Your task to perform on an android device: snooze an email in the gmail app Image 0: 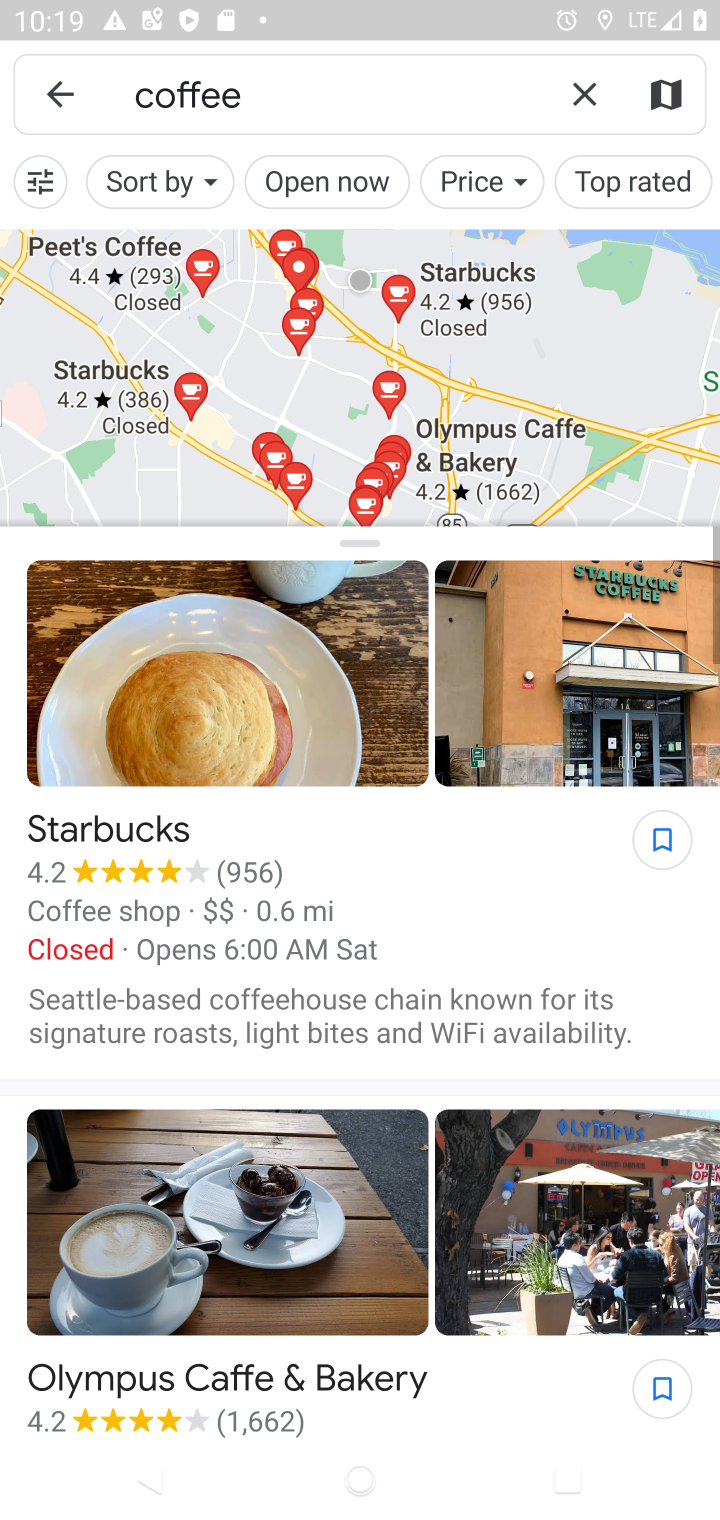
Step 0: press home button
Your task to perform on an android device: snooze an email in the gmail app Image 1: 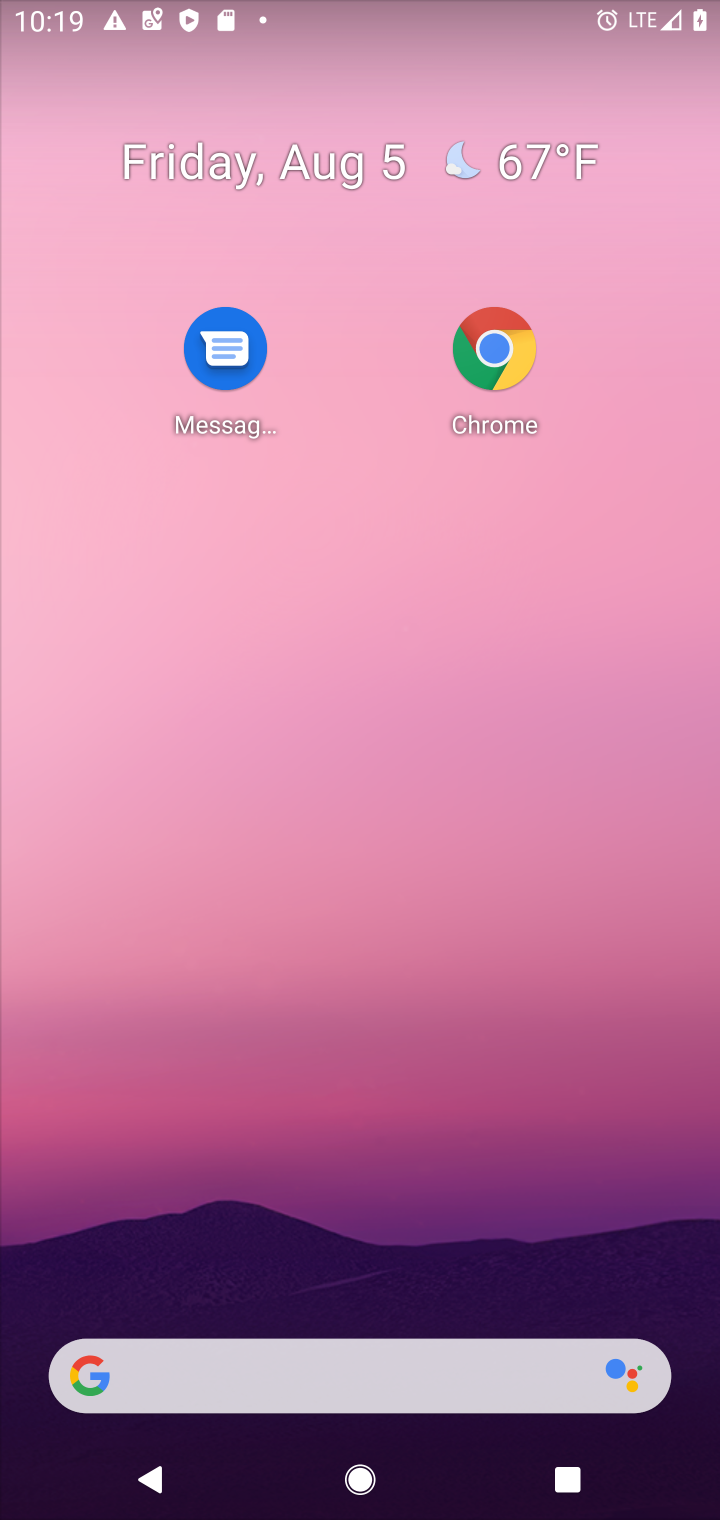
Step 1: drag from (419, 1050) to (444, 297)
Your task to perform on an android device: snooze an email in the gmail app Image 2: 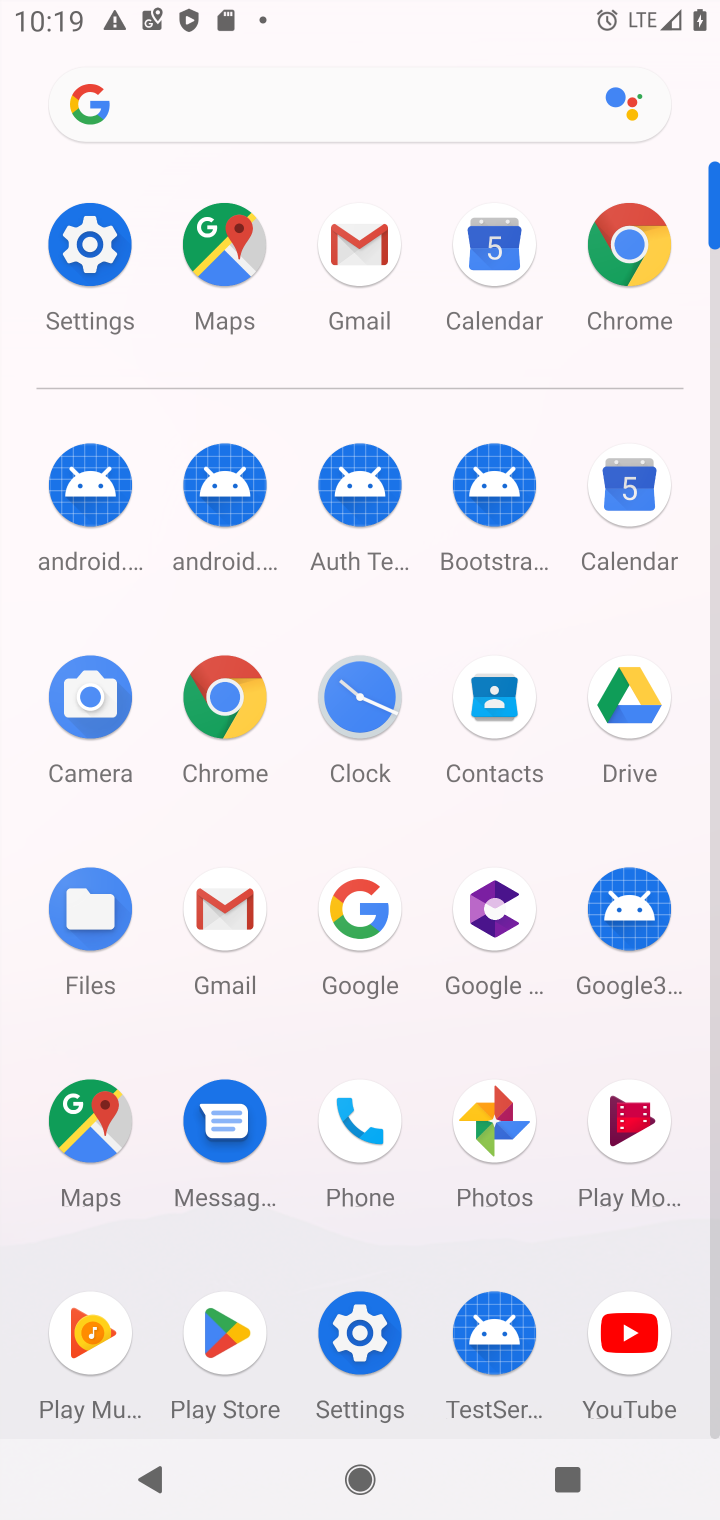
Step 2: click (366, 268)
Your task to perform on an android device: snooze an email in the gmail app Image 3: 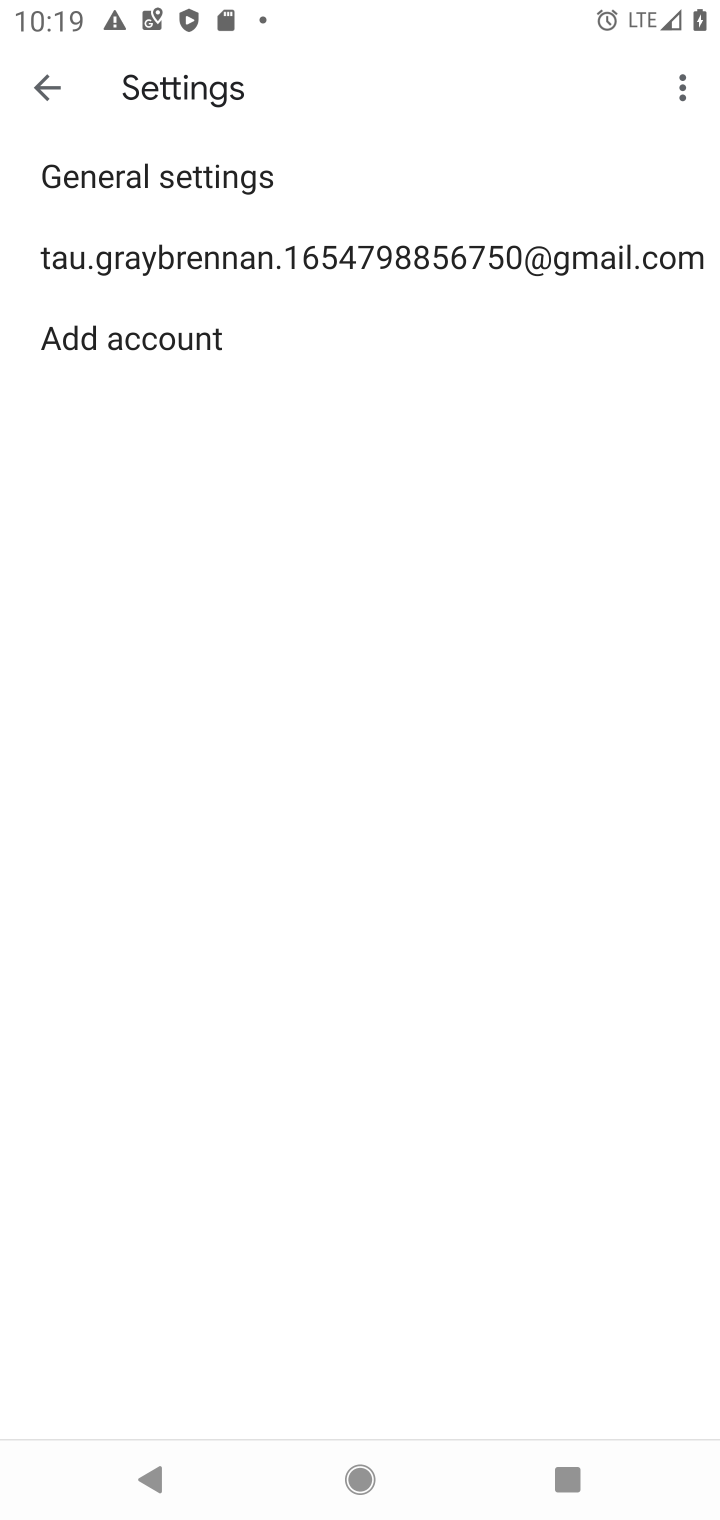
Step 3: click (34, 74)
Your task to perform on an android device: snooze an email in the gmail app Image 4: 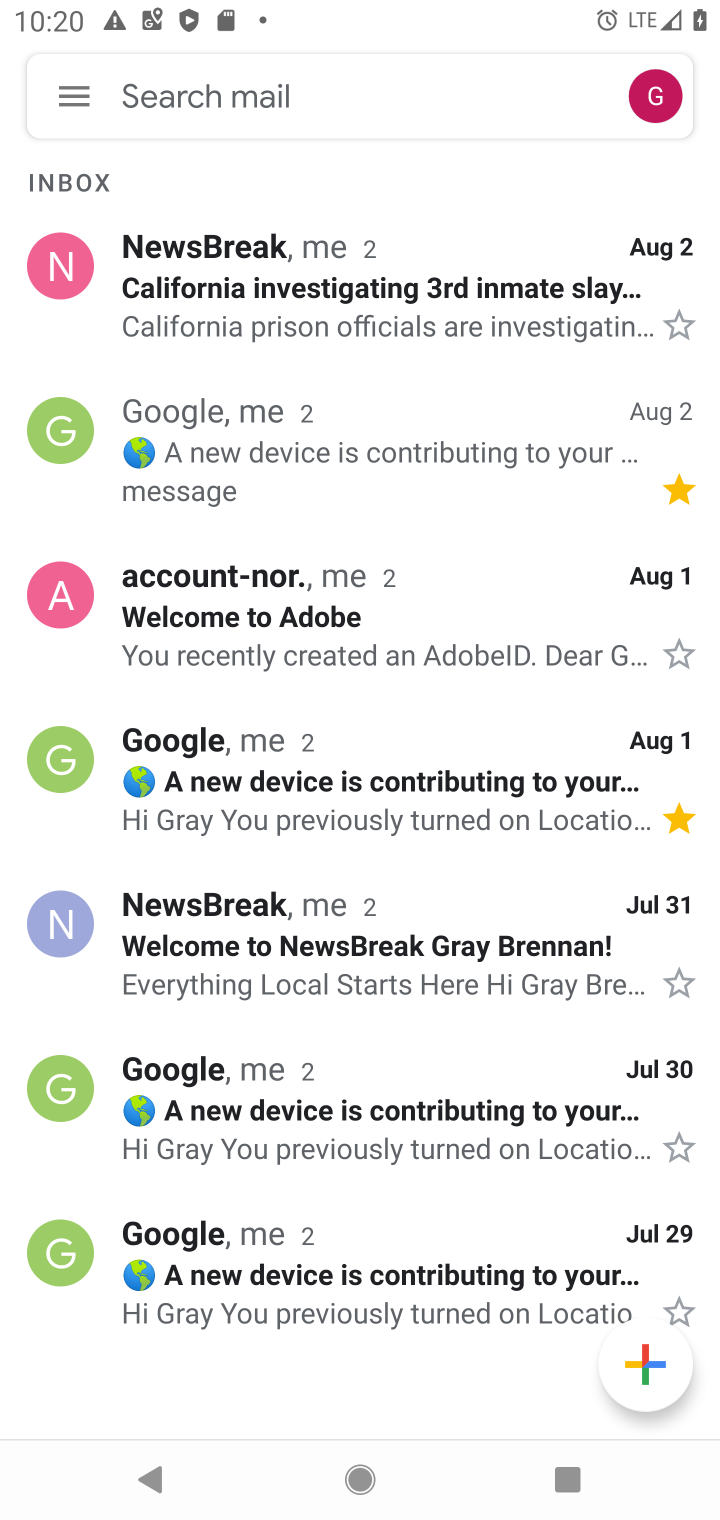
Step 4: click (275, 476)
Your task to perform on an android device: snooze an email in the gmail app Image 5: 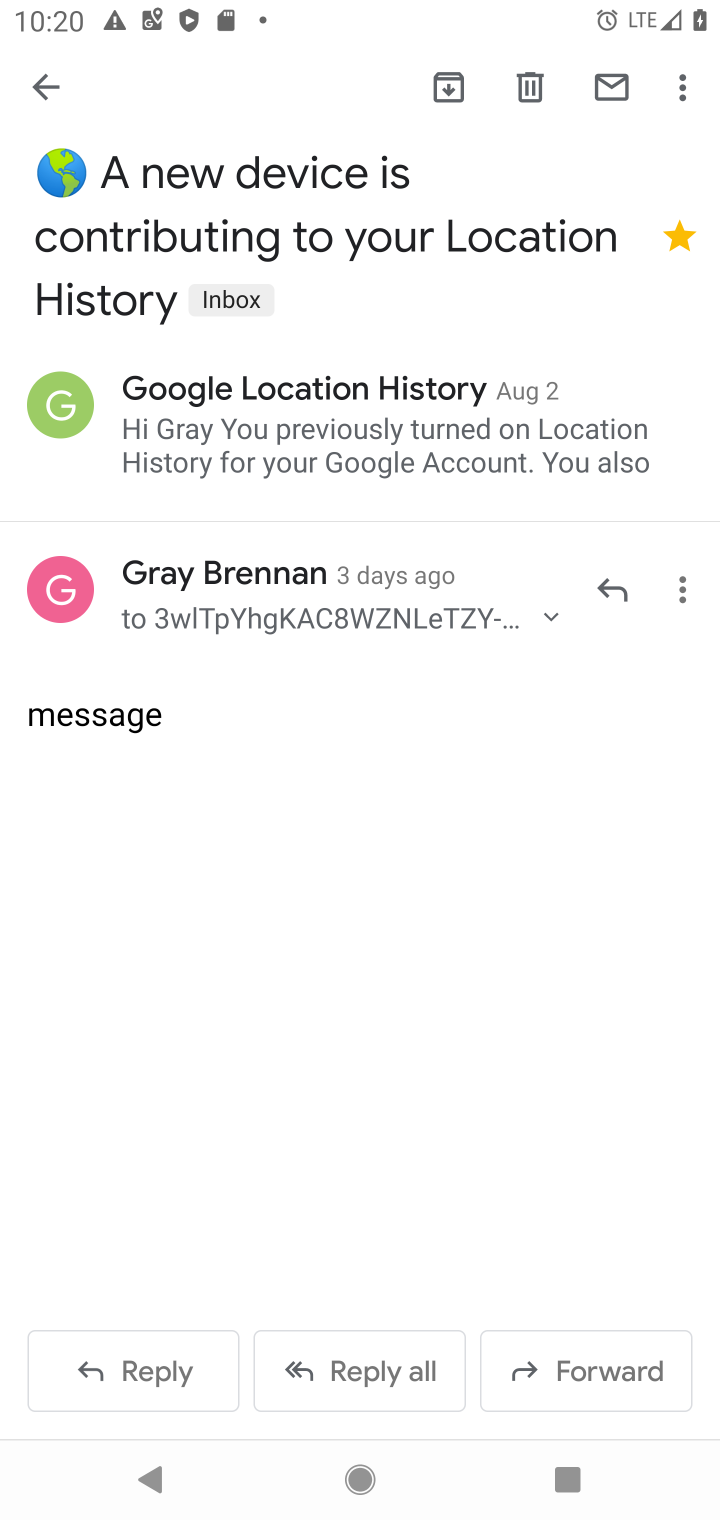
Step 5: click (680, 106)
Your task to perform on an android device: snooze an email in the gmail app Image 6: 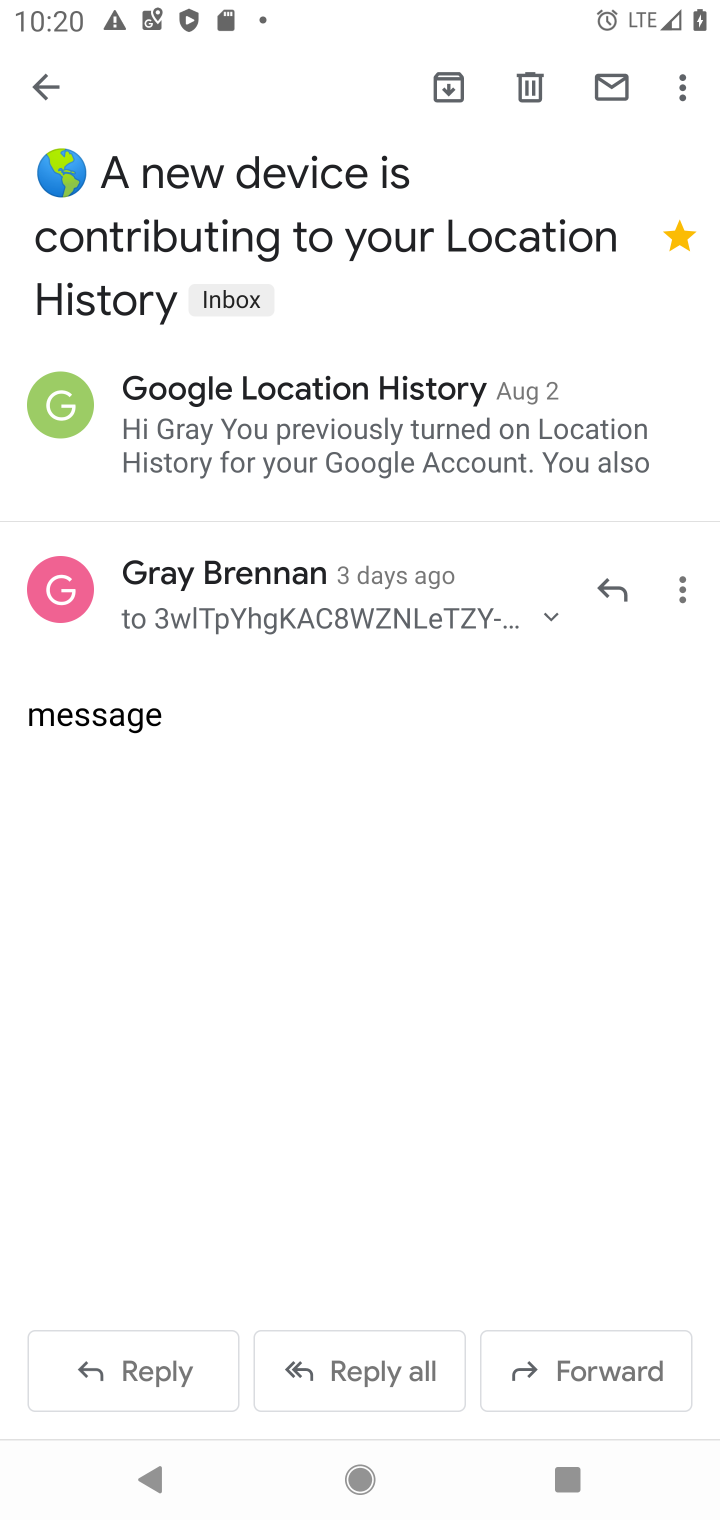
Step 6: click (669, 99)
Your task to perform on an android device: snooze an email in the gmail app Image 7: 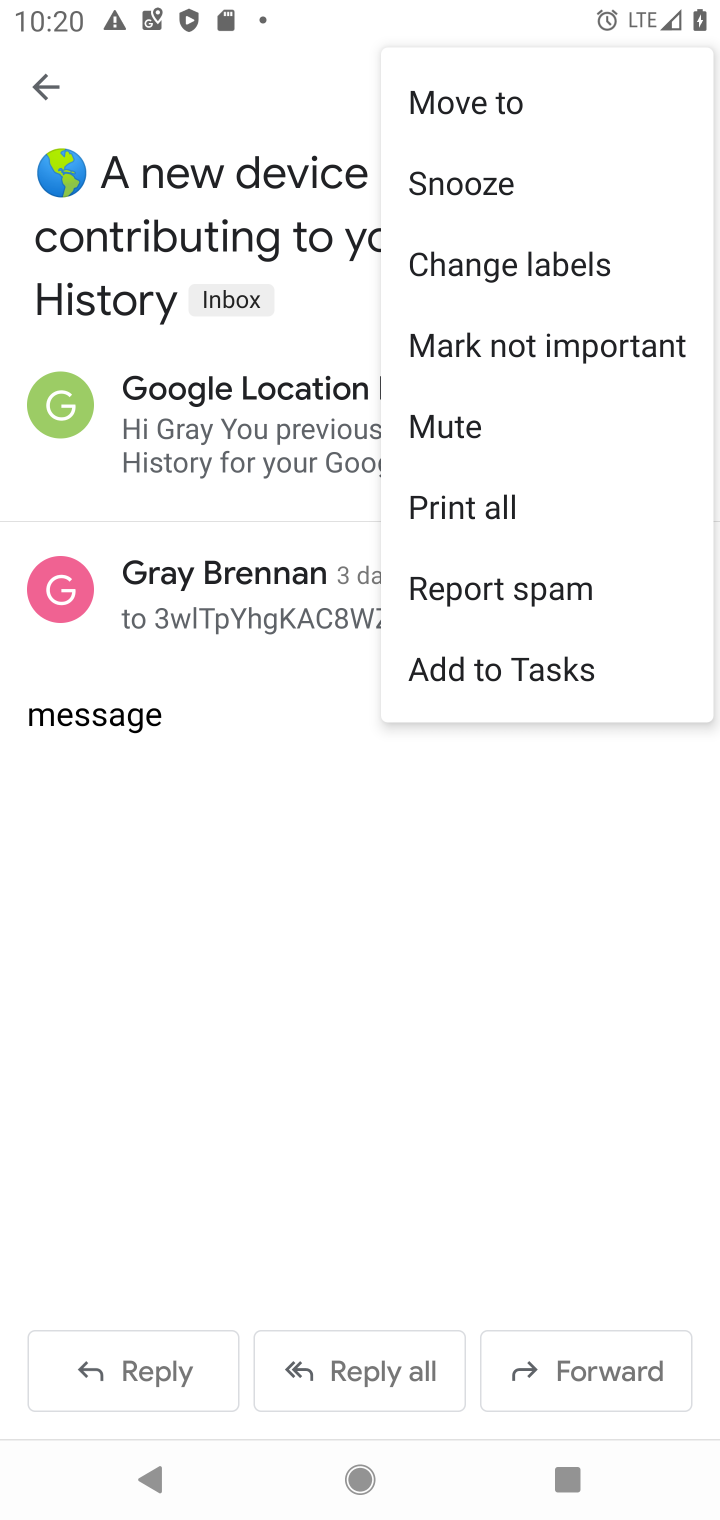
Step 7: click (500, 214)
Your task to perform on an android device: snooze an email in the gmail app Image 8: 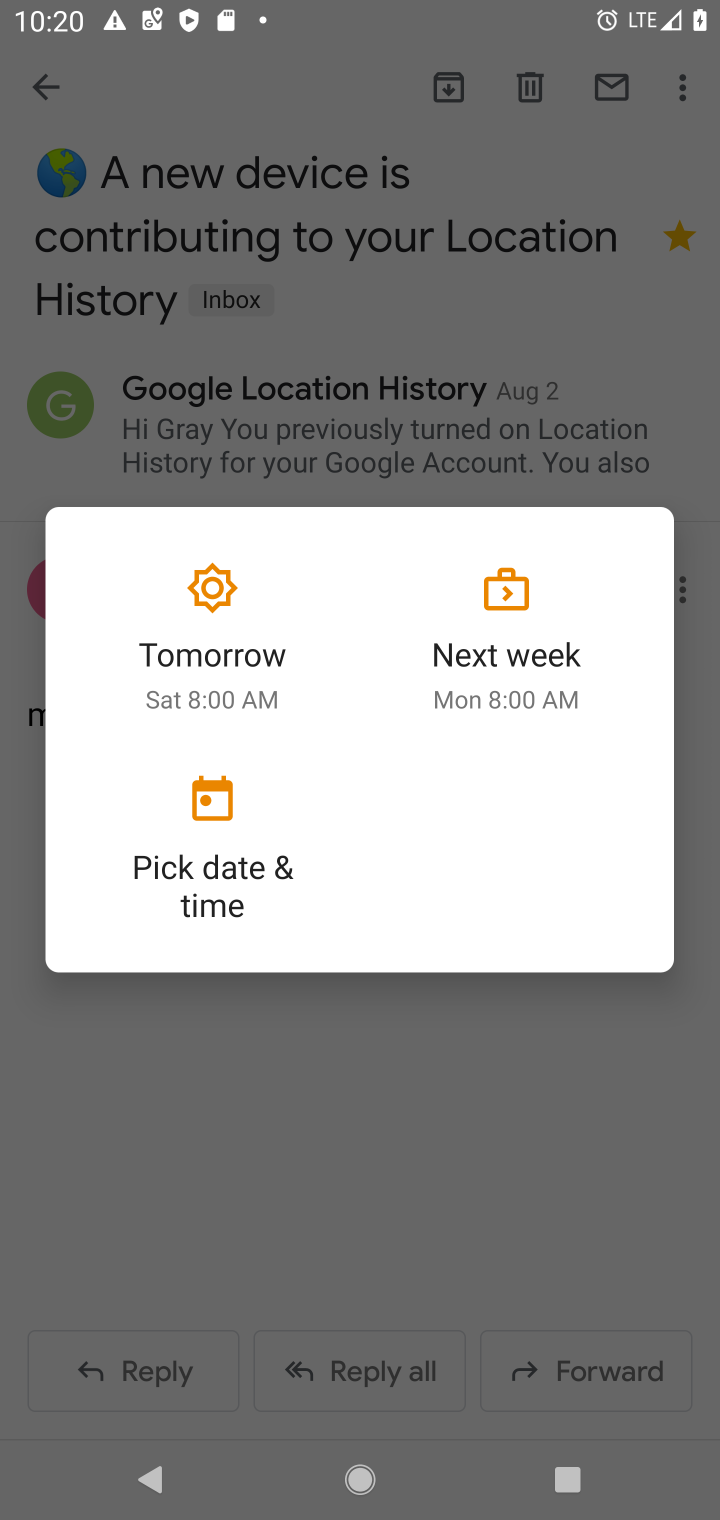
Step 8: click (263, 682)
Your task to perform on an android device: snooze an email in the gmail app Image 9: 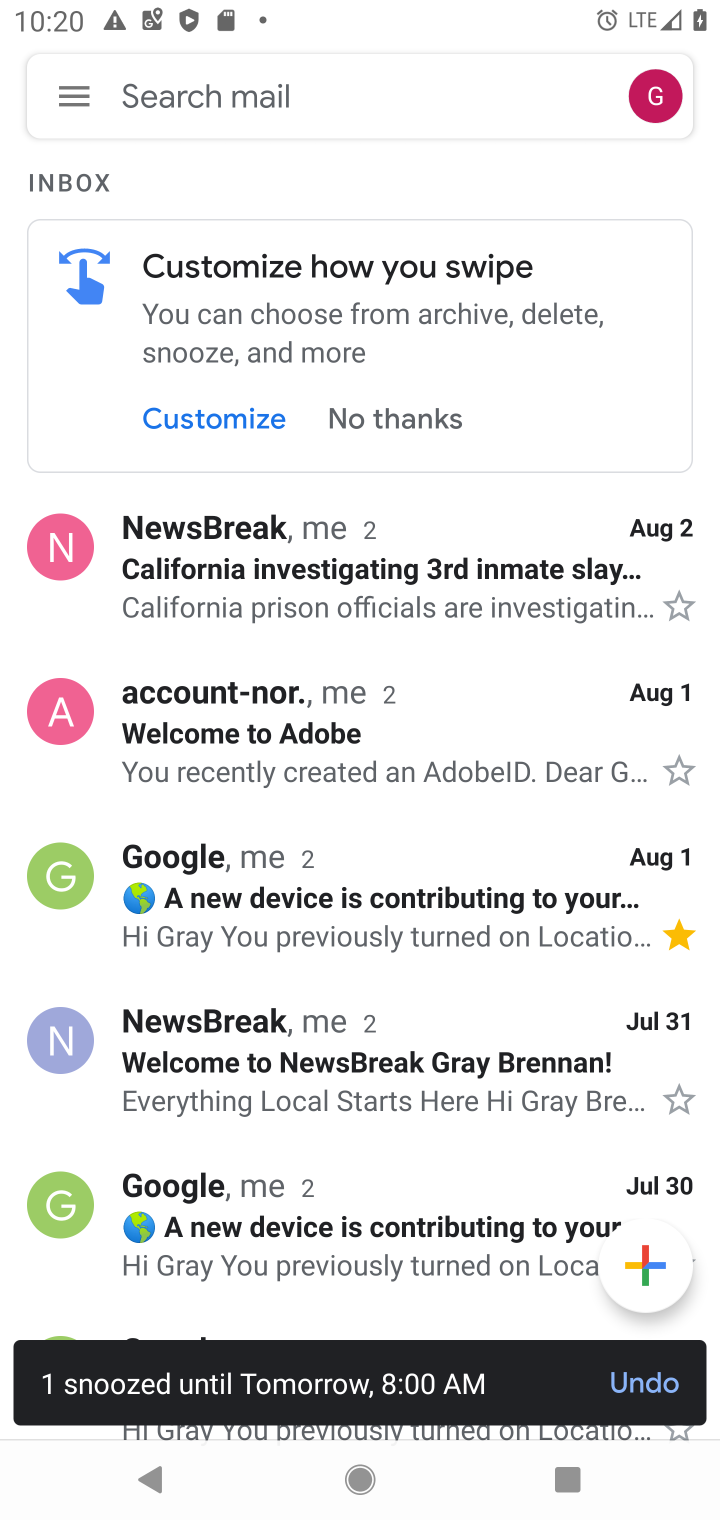
Step 9: click (389, 424)
Your task to perform on an android device: snooze an email in the gmail app Image 10: 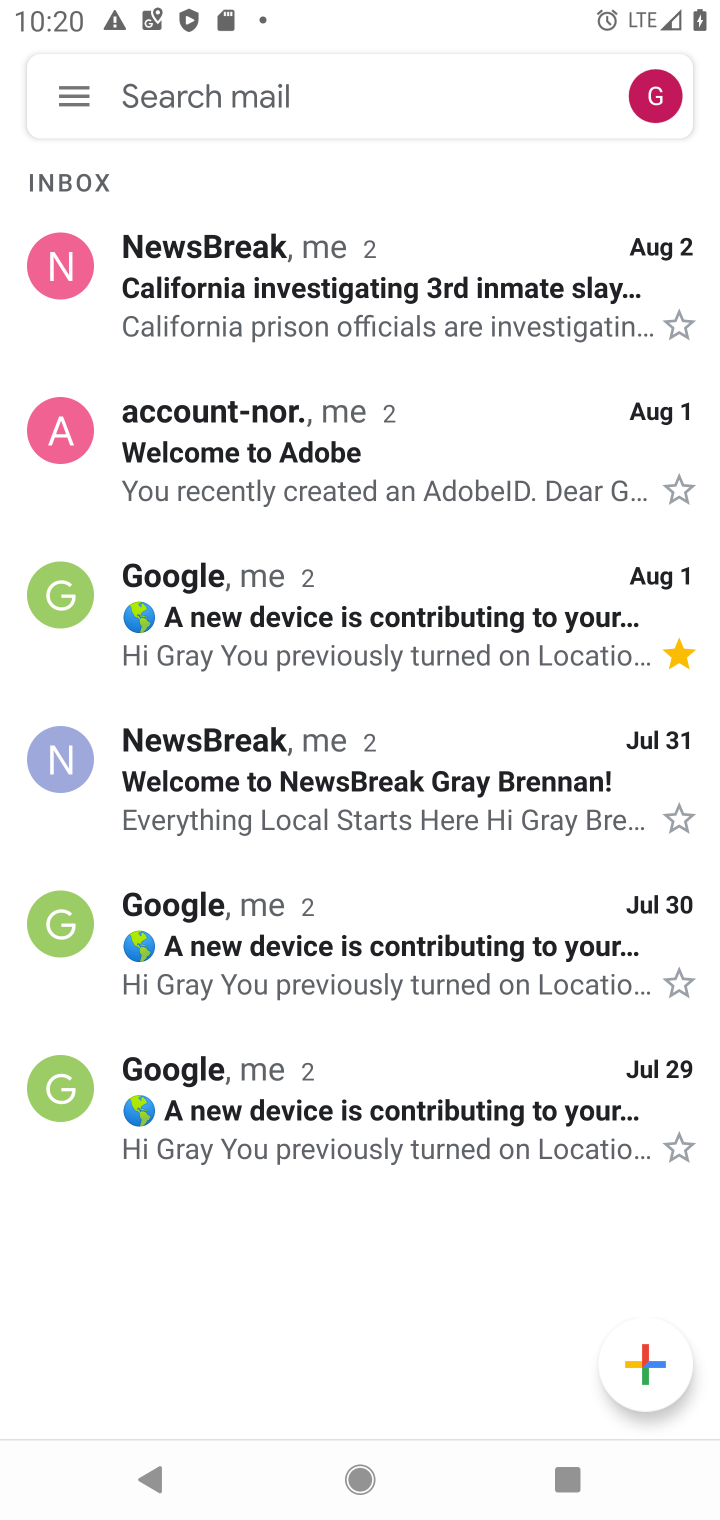
Step 10: task complete